Your task to perform on an android device: clear all cookies in the chrome app Image 0: 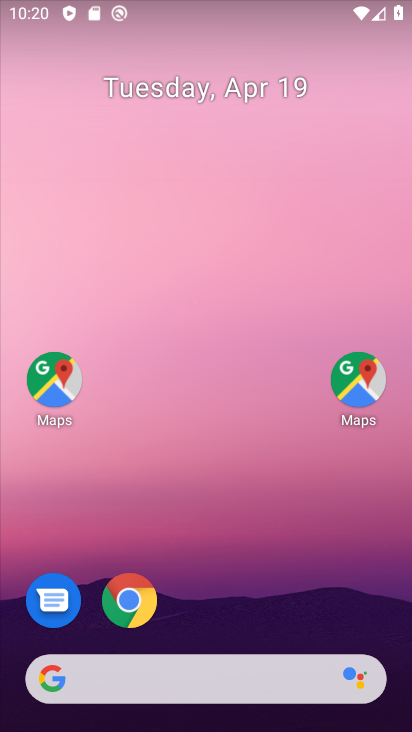
Step 0: drag from (183, 639) to (178, 196)
Your task to perform on an android device: clear all cookies in the chrome app Image 1: 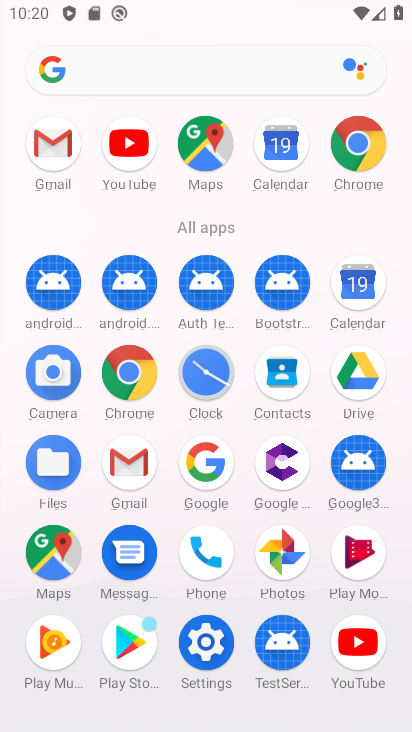
Step 1: click (112, 377)
Your task to perform on an android device: clear all cookies in the chrome app Image 2: 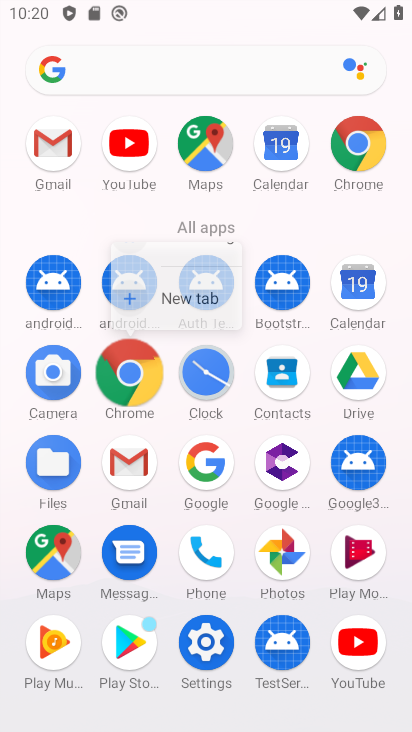
Step 2: click (112, 377)
Your task to perform on an android device: clear all cookies in the chrome app Image 3: 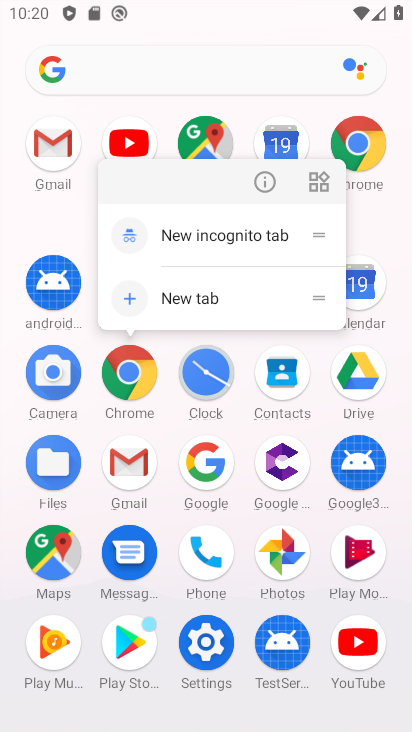
Step 3: click (112, 374)
Your task to perform on an android device: clear all cookies in the chrome app Image 4: 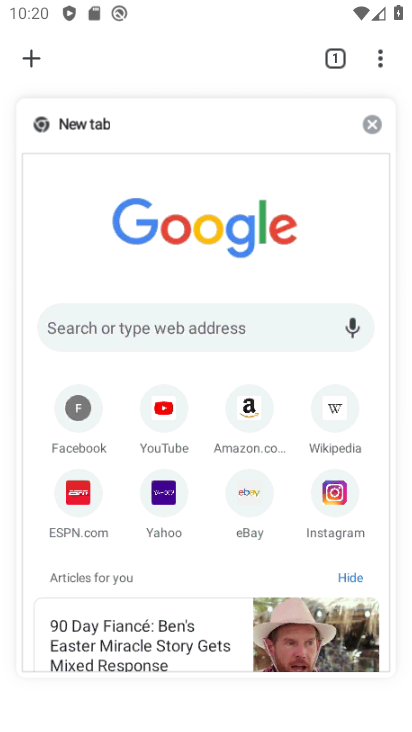
Step 4: click (380, 72)
Your task to perform on an android device: clear all cookies in the chrome app Image 5: 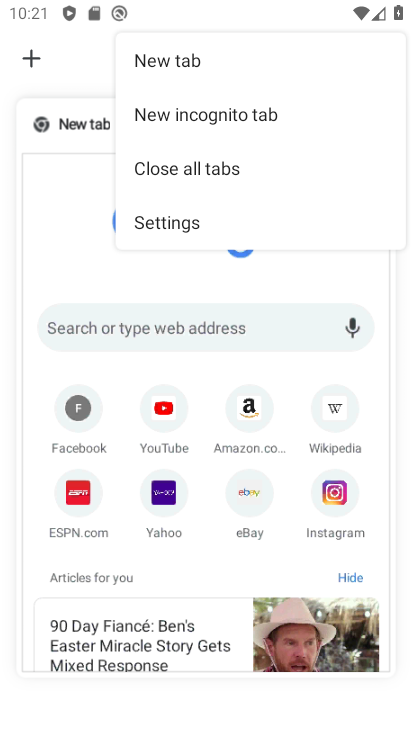
Step 5: click (170, 229)
Your task to perform on an android device: clear all cookies in the chrome app Image 6: 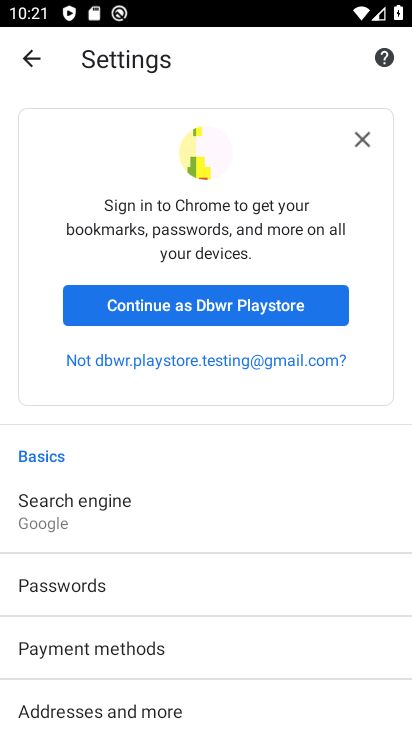
Step 6: drag from (178, 701) to (222, 239)
Your task to perform on an android device: clear all cookies in the chrome app Image 7: 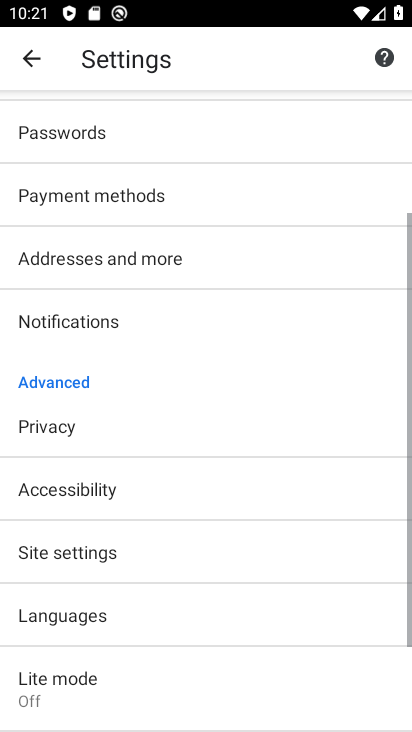
Step 7: drag from (244, 700) to (211, 357)
Your task to perform on an android device: clear all cookies in the chrome app Image 8: 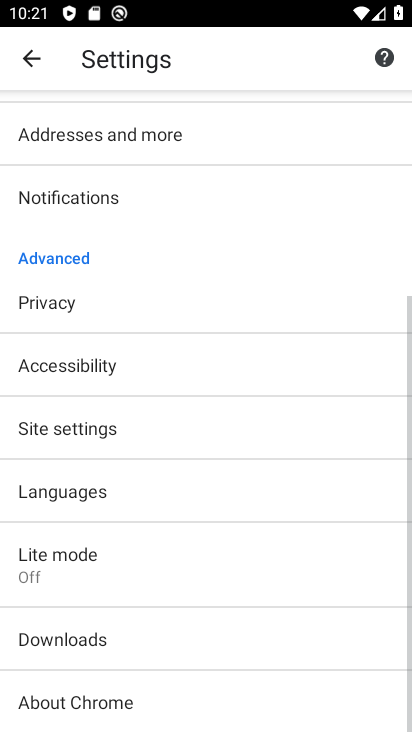
Step 8: click (81, 446)
Your task to perform on an android device: clear all cookies in the chrome app Image 9: 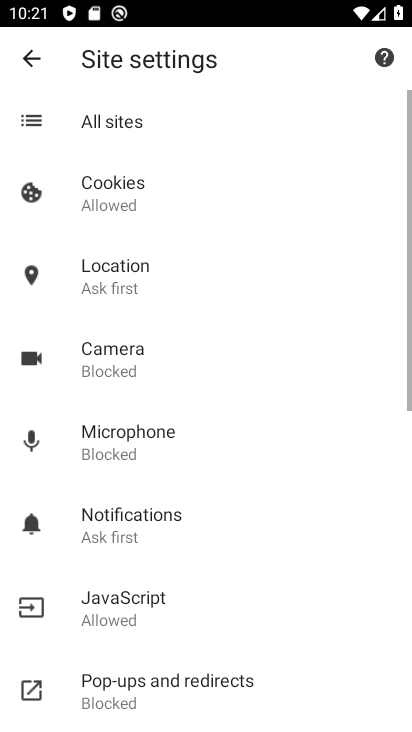
Step 9: click (149, 198)
Your task to perform on an android device: clear all cookies in the chrome app Image 10: 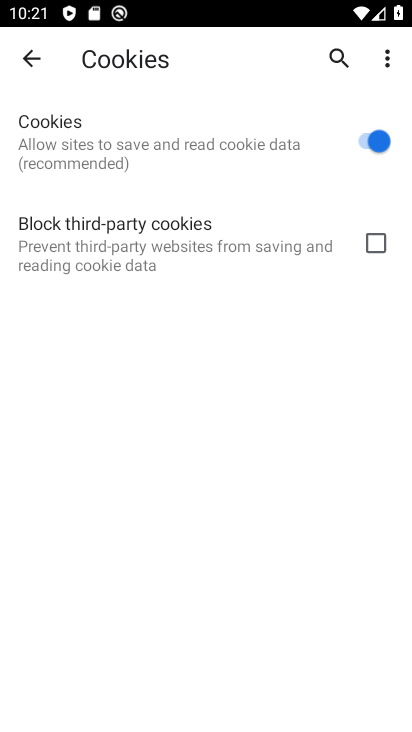
Step 10: task complete